Your task to perform on an android device: turn on the 12-hour format for clock Image 0: 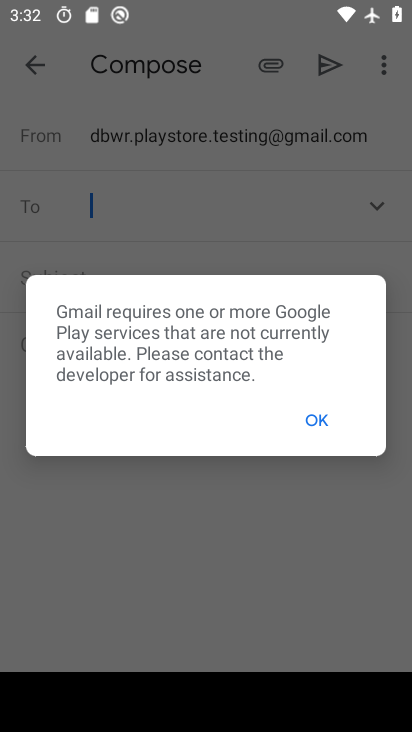
Step 0: click (322, 425)
Your task to perform on an android device: turn on the 12-hour format for clock Image 1: 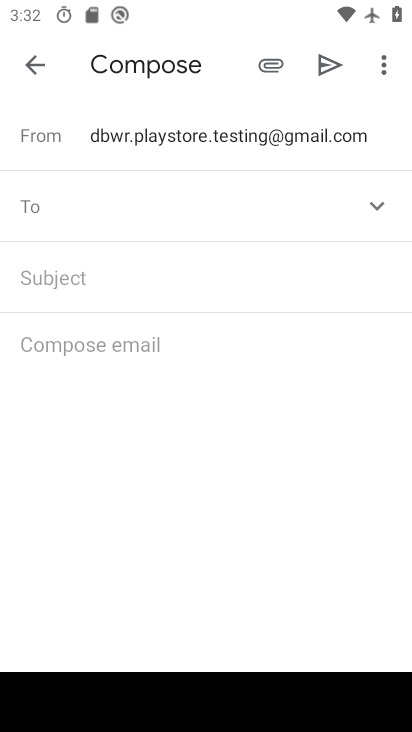
Step 1: click (23, 65)
Your task to perform on an android device: turn on the 12-hour format for clock Image 2: 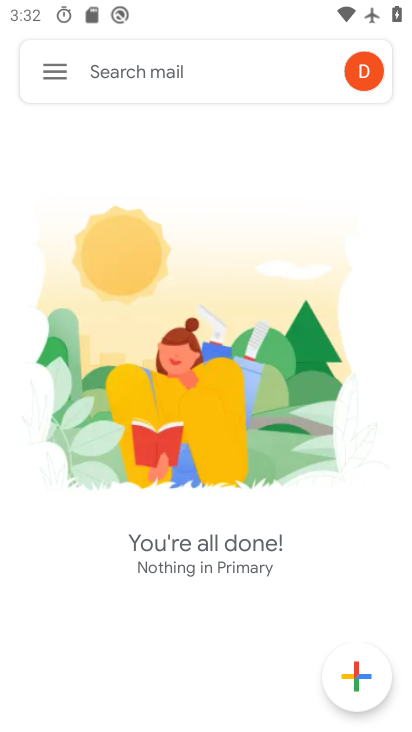
Step 2: press back button
Your task to perform on an android device: turn on the 12-hour format for clock Image 3: 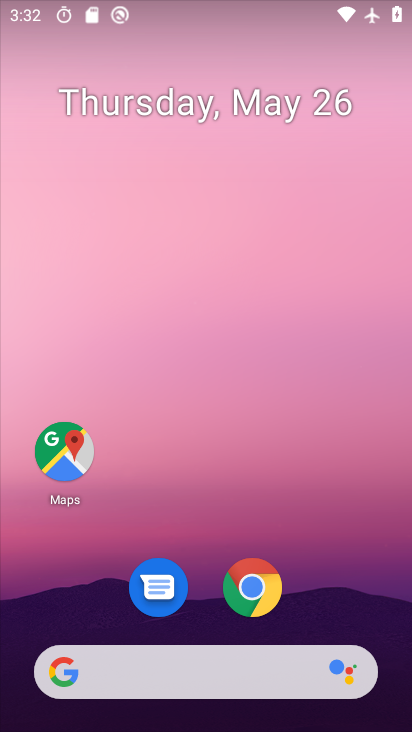
Step 3: drag from (232, 622) to (210, 78)
Your task to perform on an android device: turn on the 12-hour format for clock Image 4: 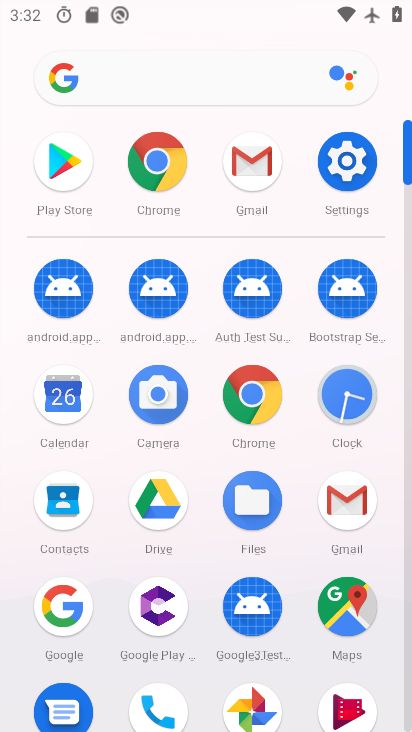
Step 4: click (350, 386)
Your task to perform on an android device: turn on the 12-hour format for clock Image 5: 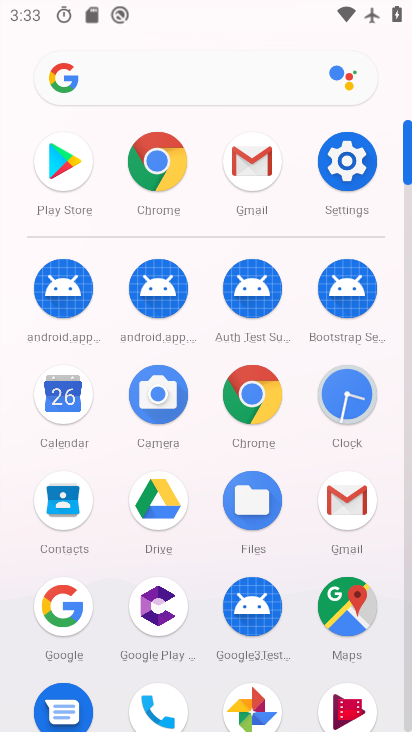
Step 5: click (360, 381)
Your task to perform on an android device: turn on the 12-hour format for clock Image 6: 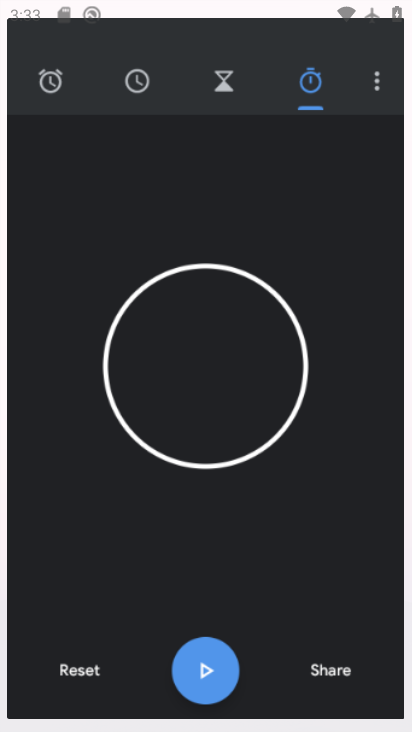
Step 6: click (360, 381)
Your task to perform on an android device: turn on the 12-hour format for clock Image 7: 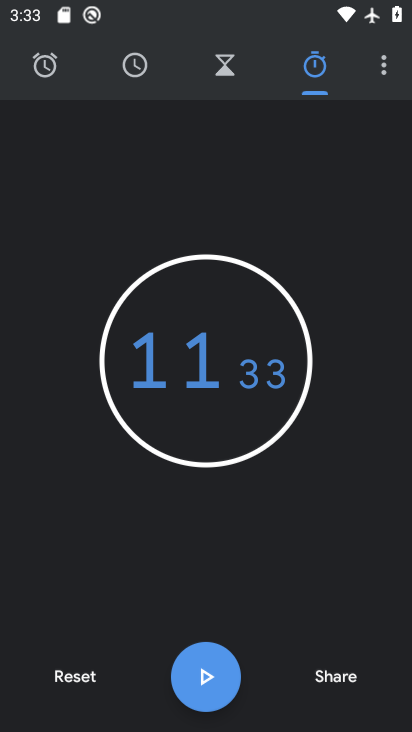
Step 7: click (360, 381)
Your task to perform on an android device: turn on the 12-hour format for clock Image 8: 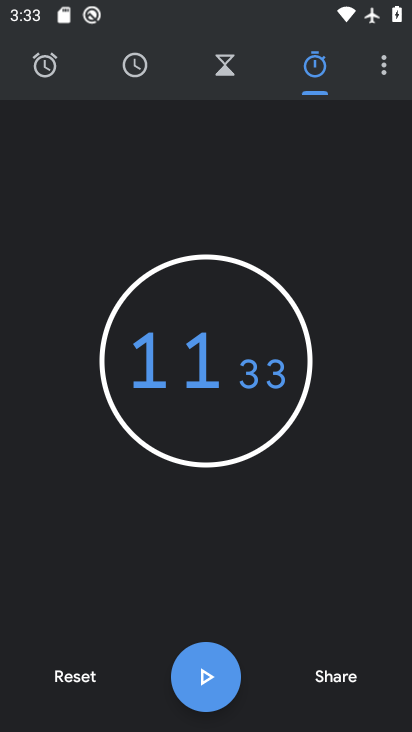
Step 8: click (389, 75)
Your task to perform on an android device: turn on the 12-hour format for clock Image 9: 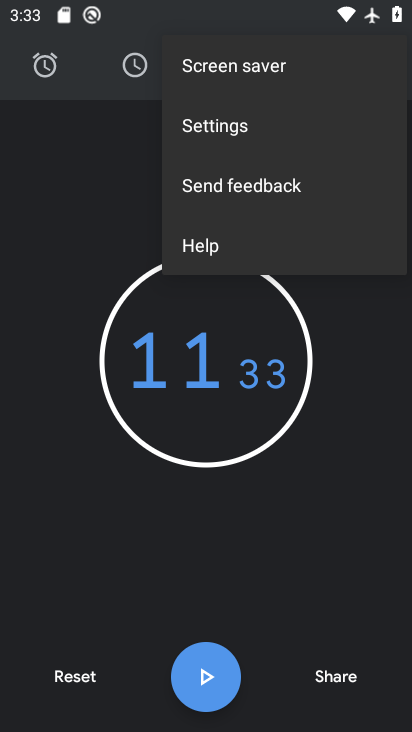
Step 9: click (220, 141)
Your task to perform on an android device: turn on the 12-hour format for clock Image 10: 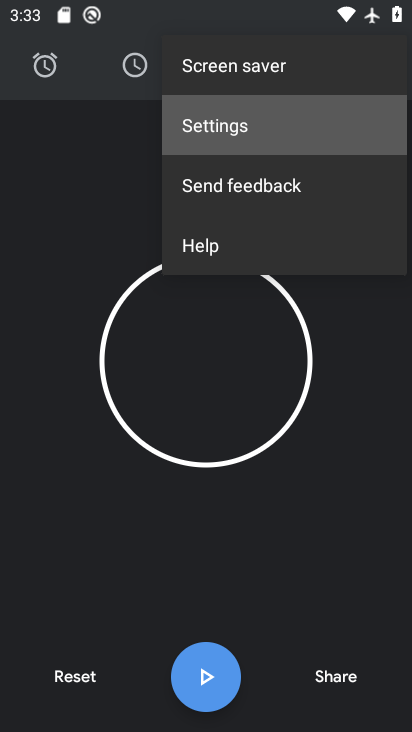
Step 10: click (218, 133)
Your task to perform on an android device: turn on the 12-hour format for clock Image 11: 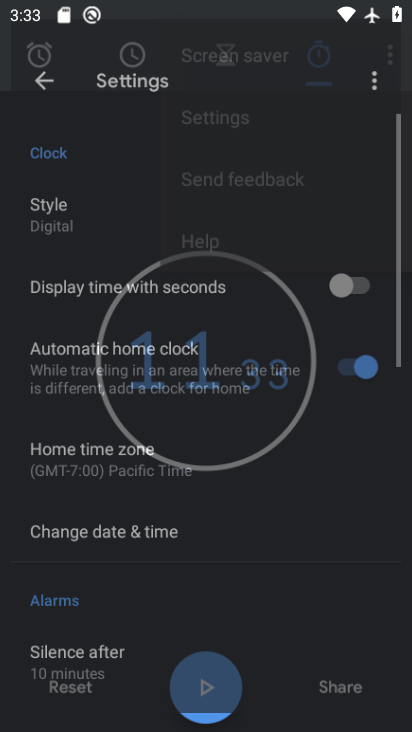
Step 11: click (217, 130)
Your task to perform on an android device: turn on the 12-hour format for clock Image 12: 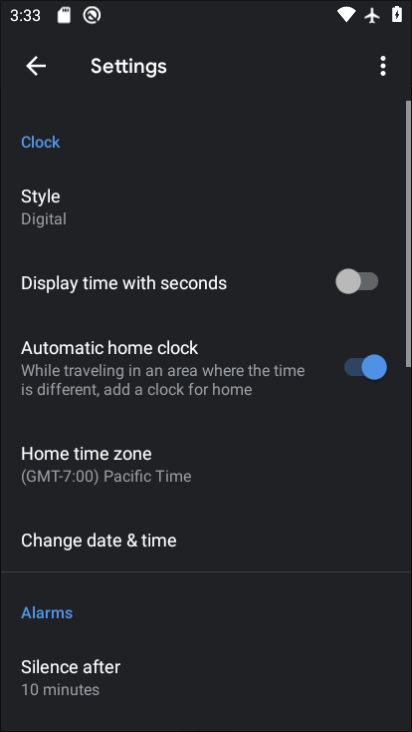
Step 12: click (222, 127)
Your task to perform on an android device: turn on the 12-hour format for clock Image 13: 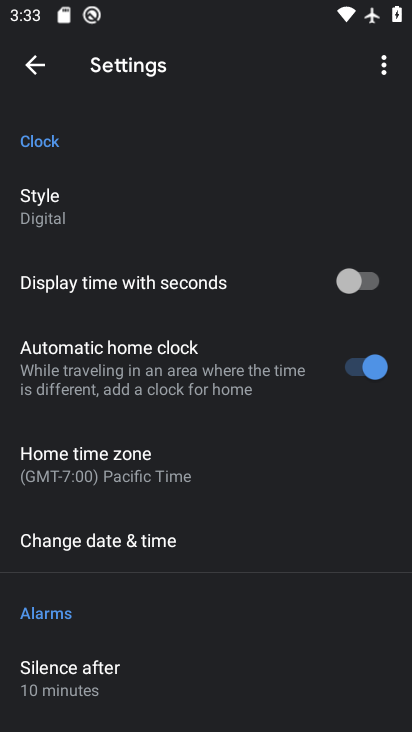
Step 13: click (107, 542)
Your task to perform on an android device: turn on the 12-hour format for clock Image 14: 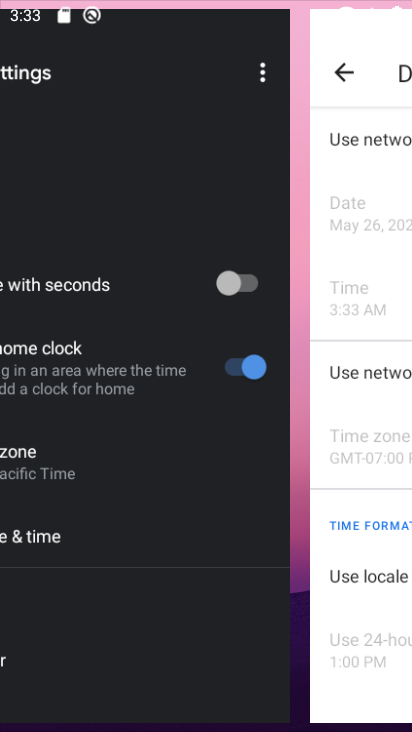
Step 14: click (114, 538)
Your task to perform on an android device: turn on the 12-hour format for clock Image 15: 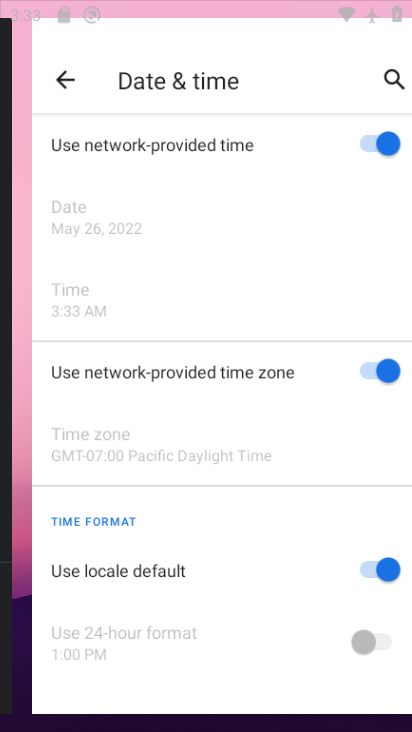
Step 15: click (116, 538)
Your task to perform on an android device: turn on the 12-hour format for clock Image 16: 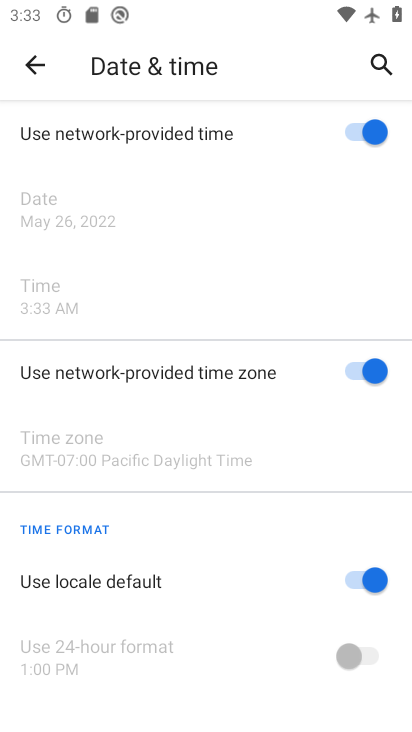
Step 16: task complete